Your task to perform on an android device: turn on location history Image 0: 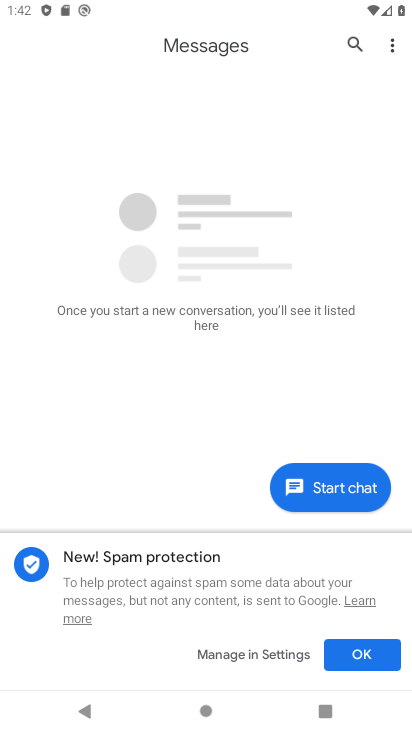
Step 0: press home button
Your task to perform on an android device: turn on location history Image 1: 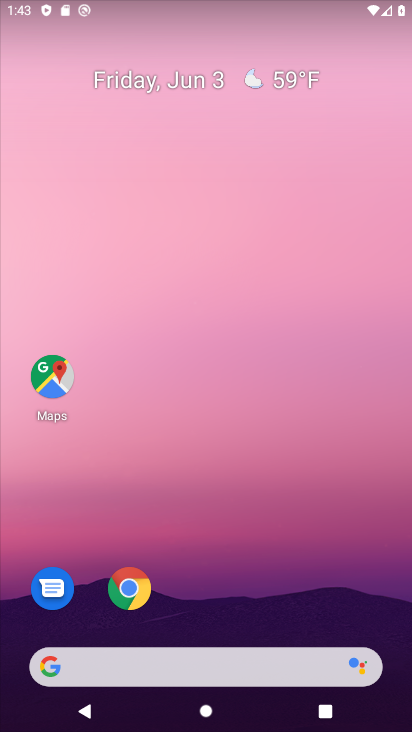
Step 1: drag from (133, 724) to (184, 27)
Your task to perform on an android device: turn on location history Image 2: 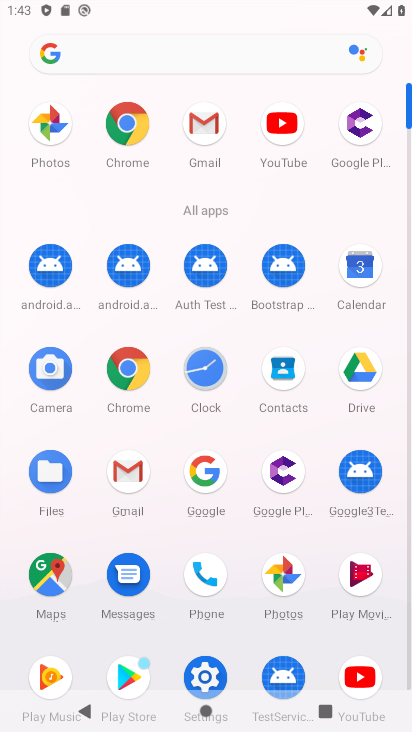
Step 2: click (201, 672)
Your task to perform on an android device: turn on location history Image 3: 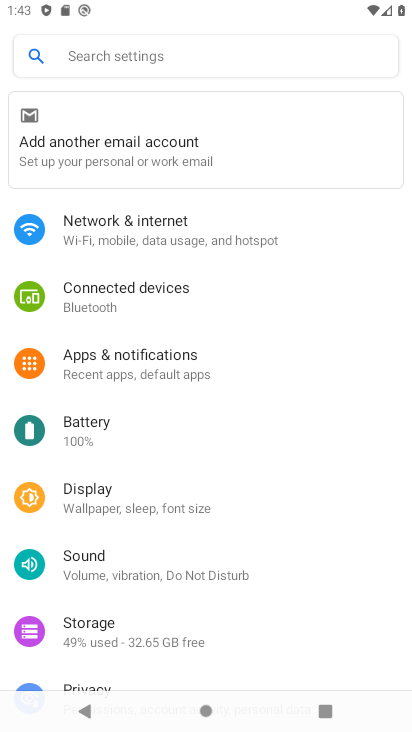
Step 3: drag from (255, 610) to (282, 198)
Your task to perform on an android device: turn on location history Image 4: 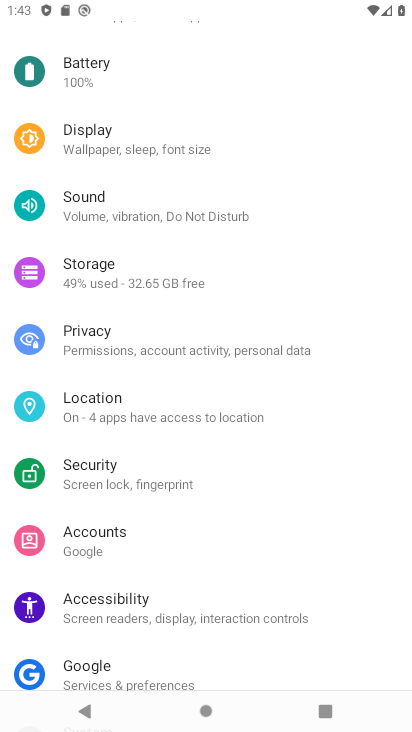
Step 4: click (100, 420)
Your task to perform on an android device: turn on location history Image 5: 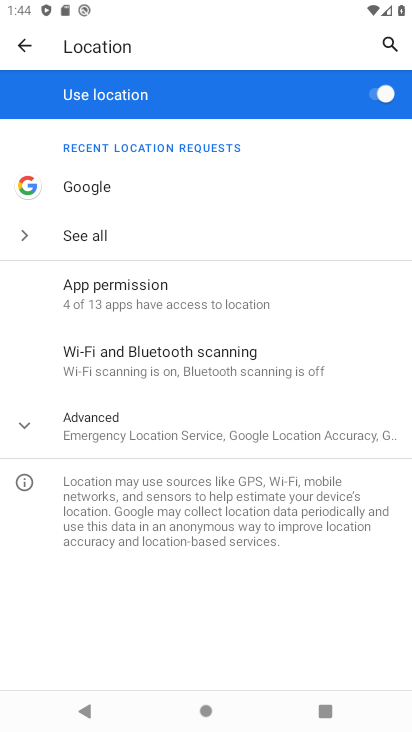
Step 5: click (184, 427)
Your task to perform on an android device: turn on location history Image 6: 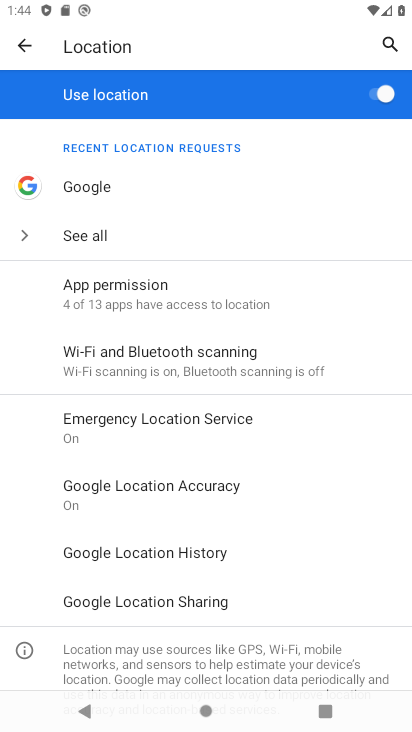
Step 6: click (184, 562)
Your task to perform on an android device: turn on location history Image 7: 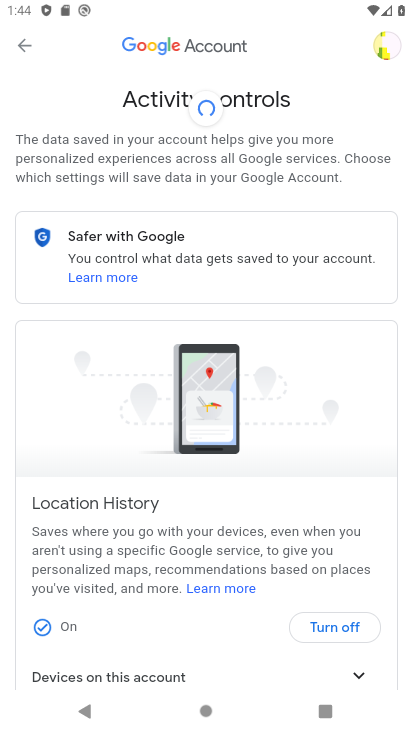
Step 7: task complete